Your task to perform on an android device: What's the latest video from Game Informer? Image 0: 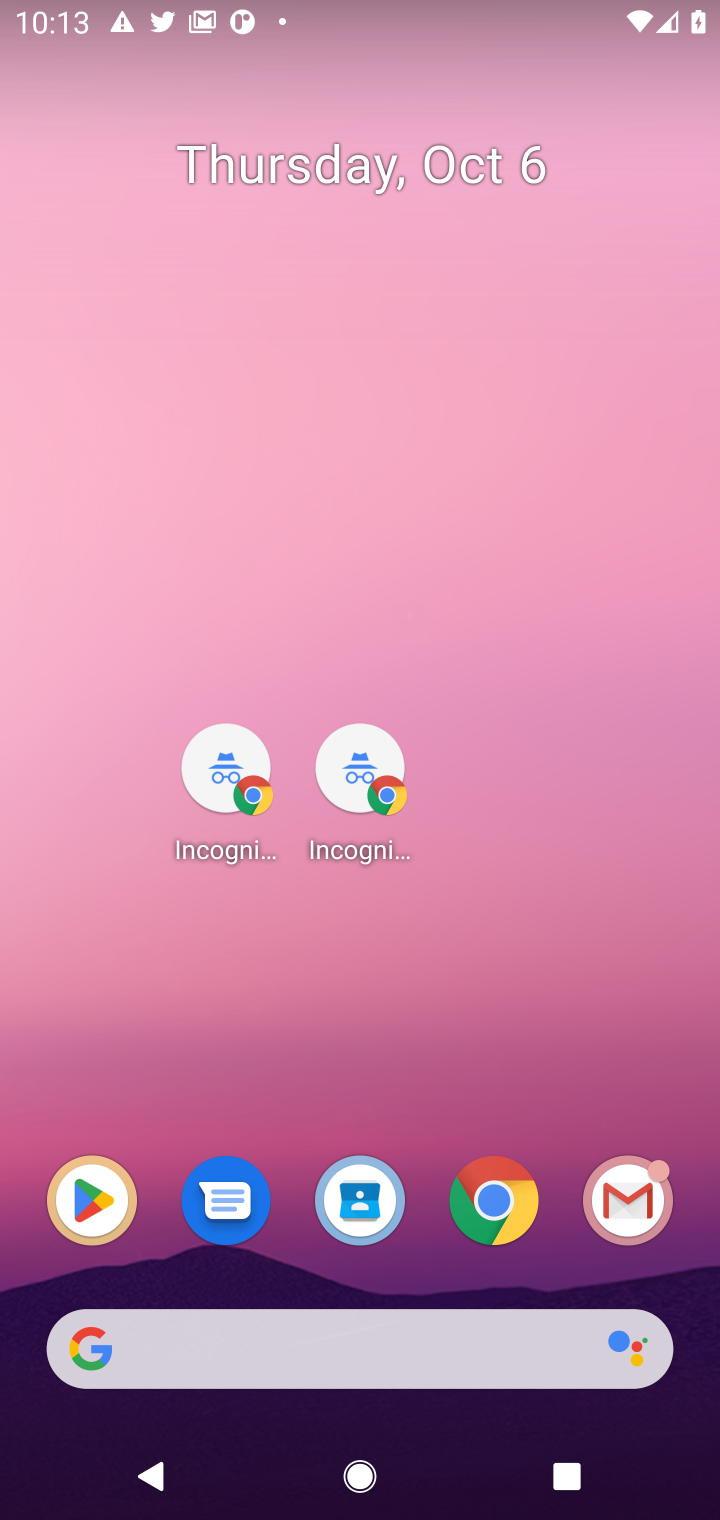
Step 0: click (488, 1196)
Your task to perform on an android device: What's the latest video from Game Informer? Image 1: 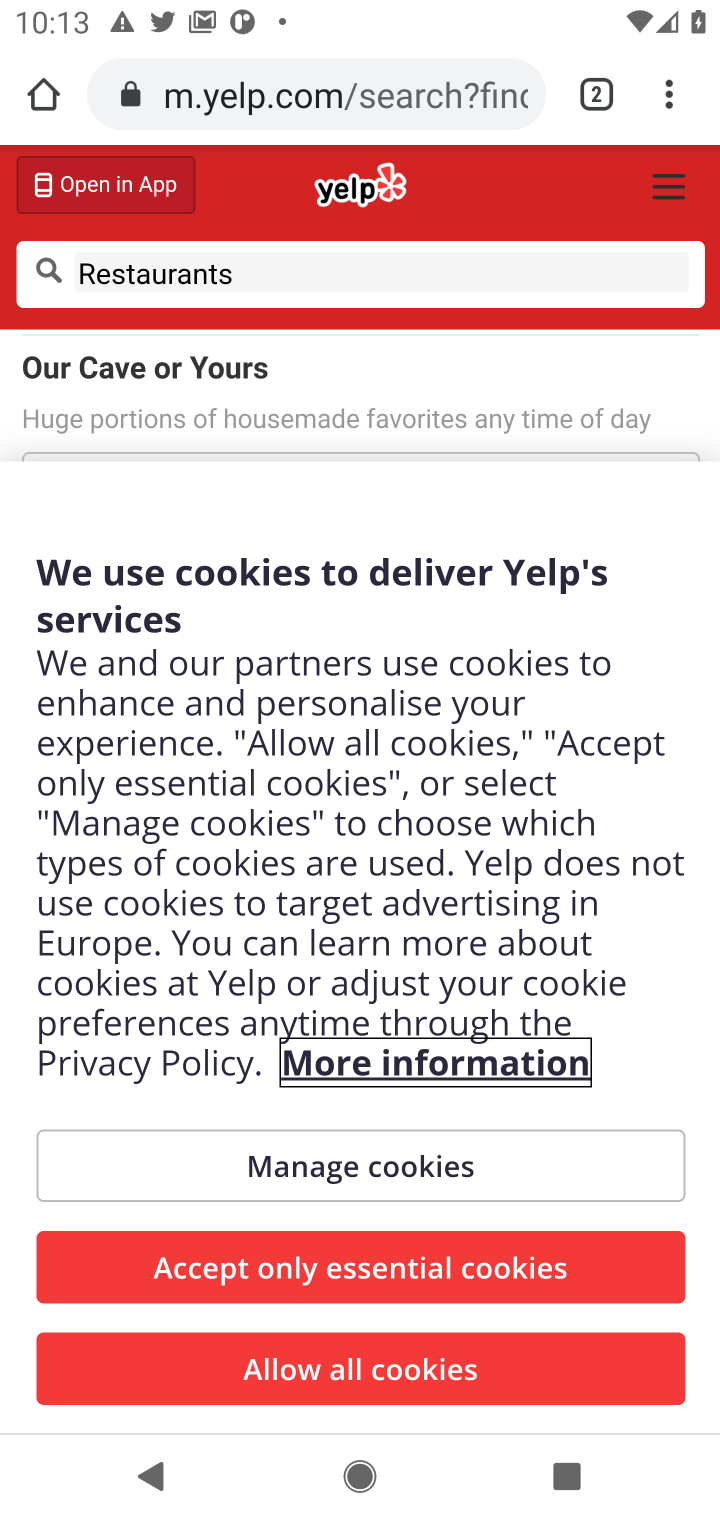
Step 1: click (414, 81)
Your task to perform on an android device: What's the latest video from Game Informer? Image 2: 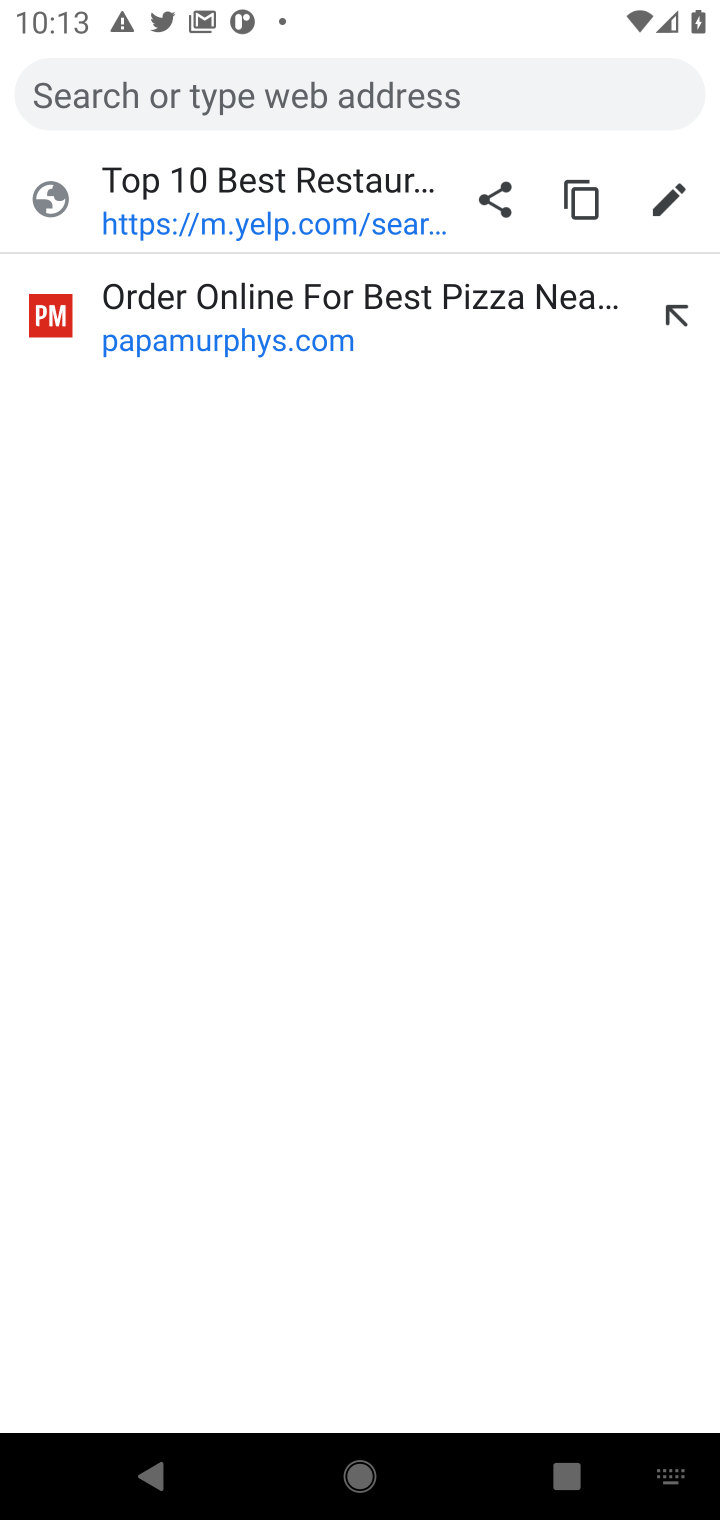
Step 2: type "game informer "
Your task to perform on an android device: What's the latest video from Game Informer? Image 3: 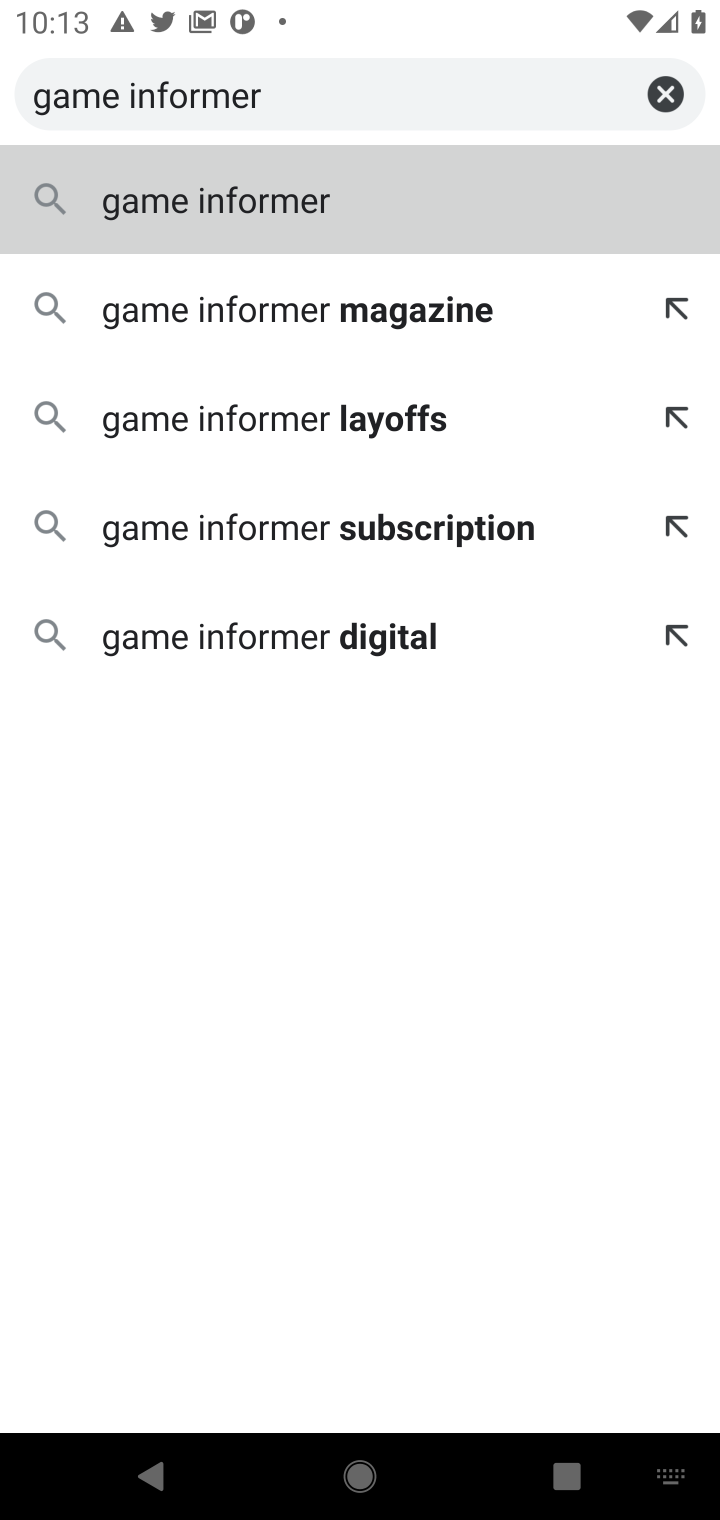
Step 3: type ""
Your task to perform on an android device: What's the latest video from Game Informer? Image 4: 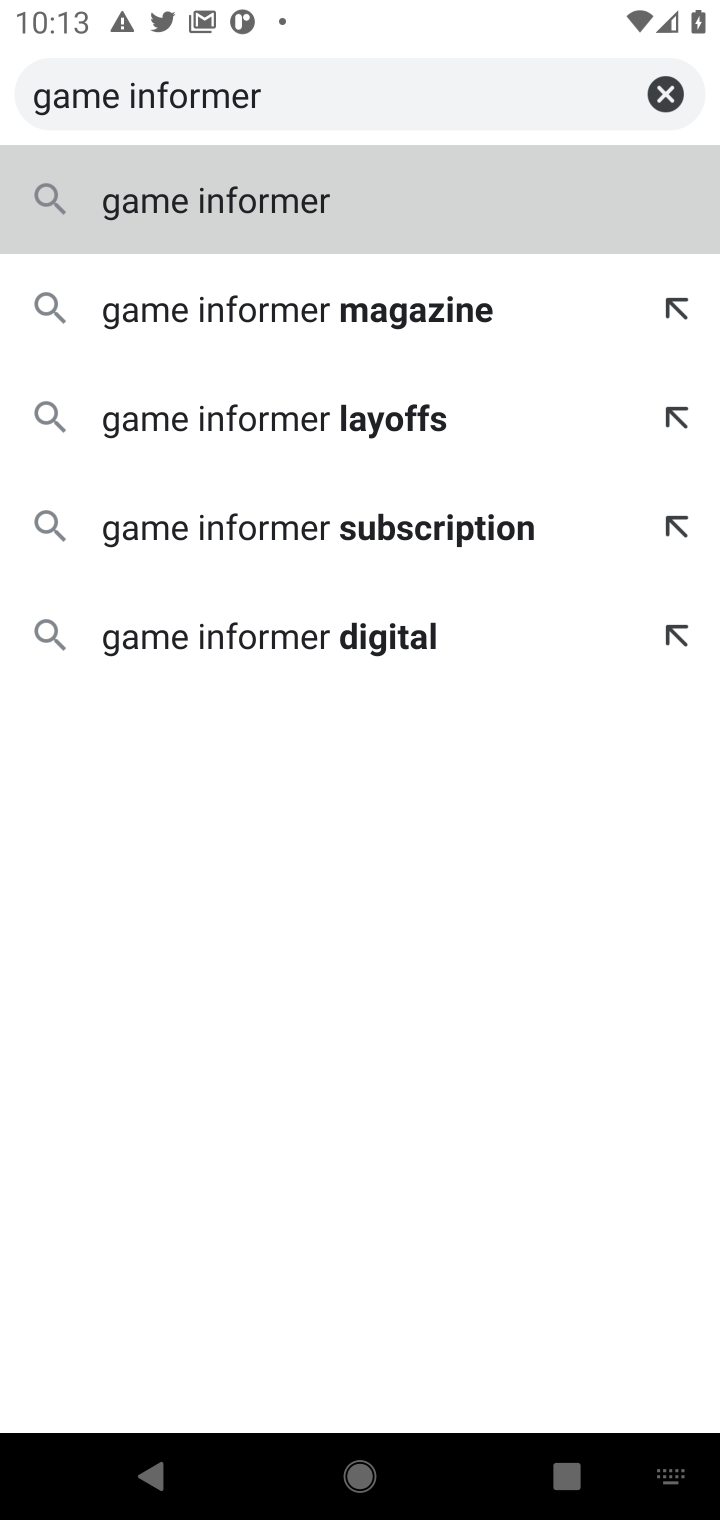
Step 4: click (270, 190)
Your task to perform on an android device: What's the latest video from Game Informer? Image 5: 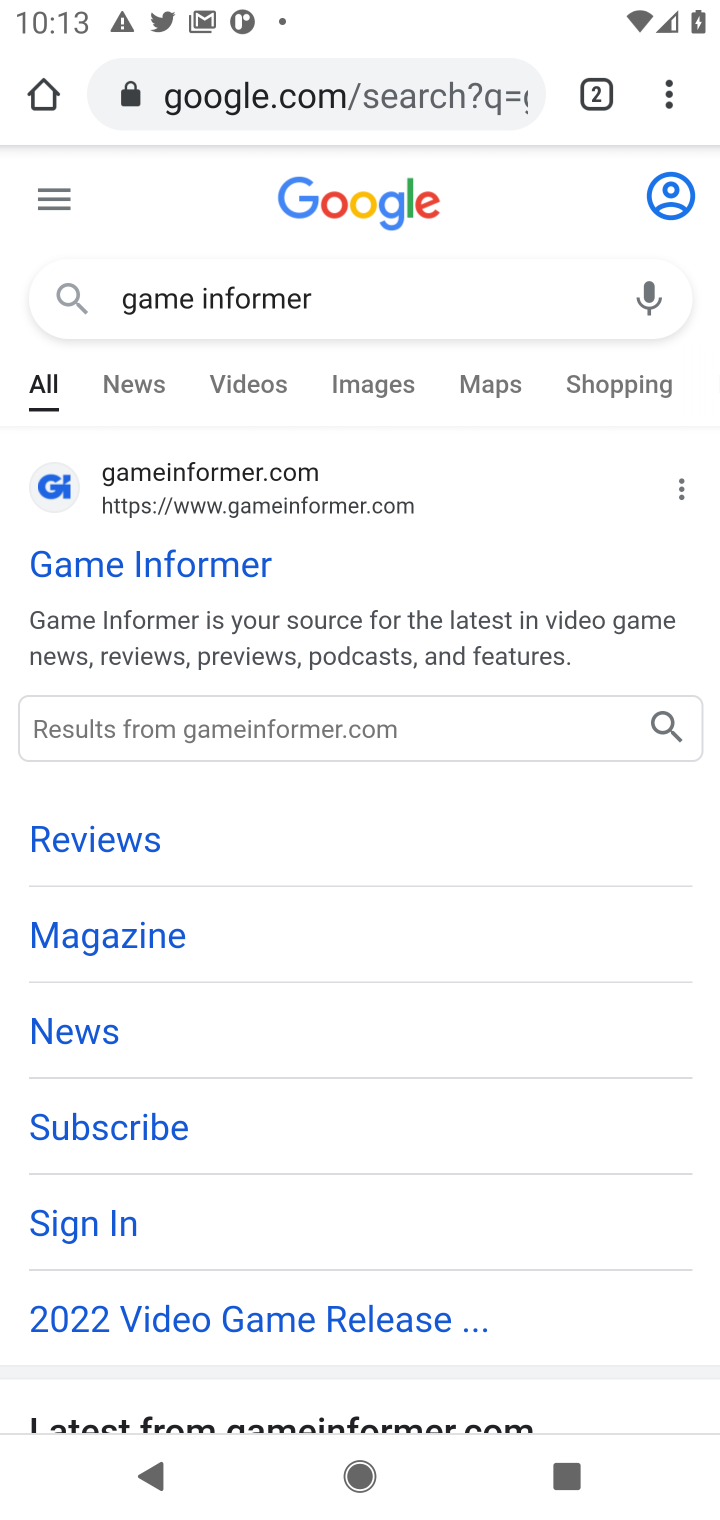
Step 5: click (168, 561)
Your task to perform on an android device: What's the latest video from Game Informer? Image 6: 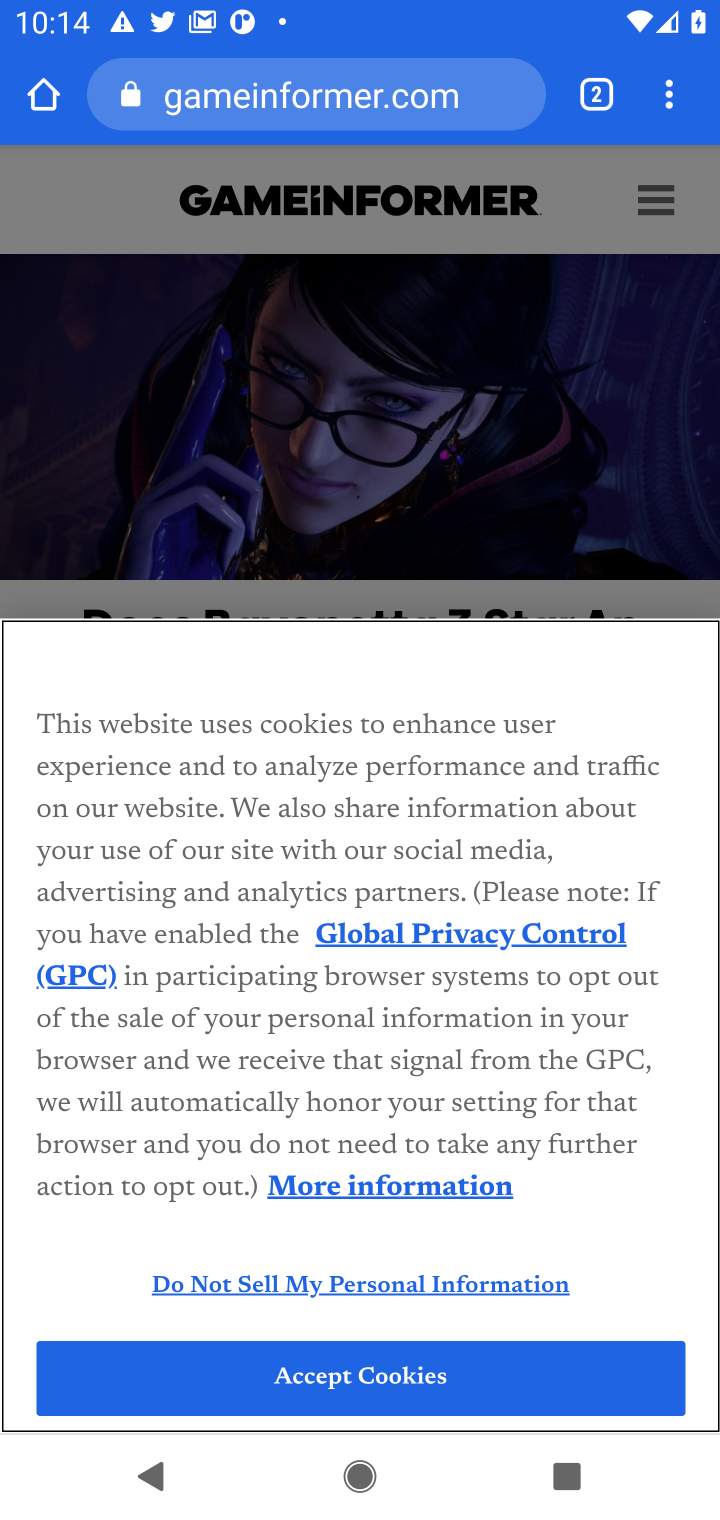
Step 6: click (348, 1373)
Your task to perform on an android device: What's the latest video from Game Informer? Image 7: 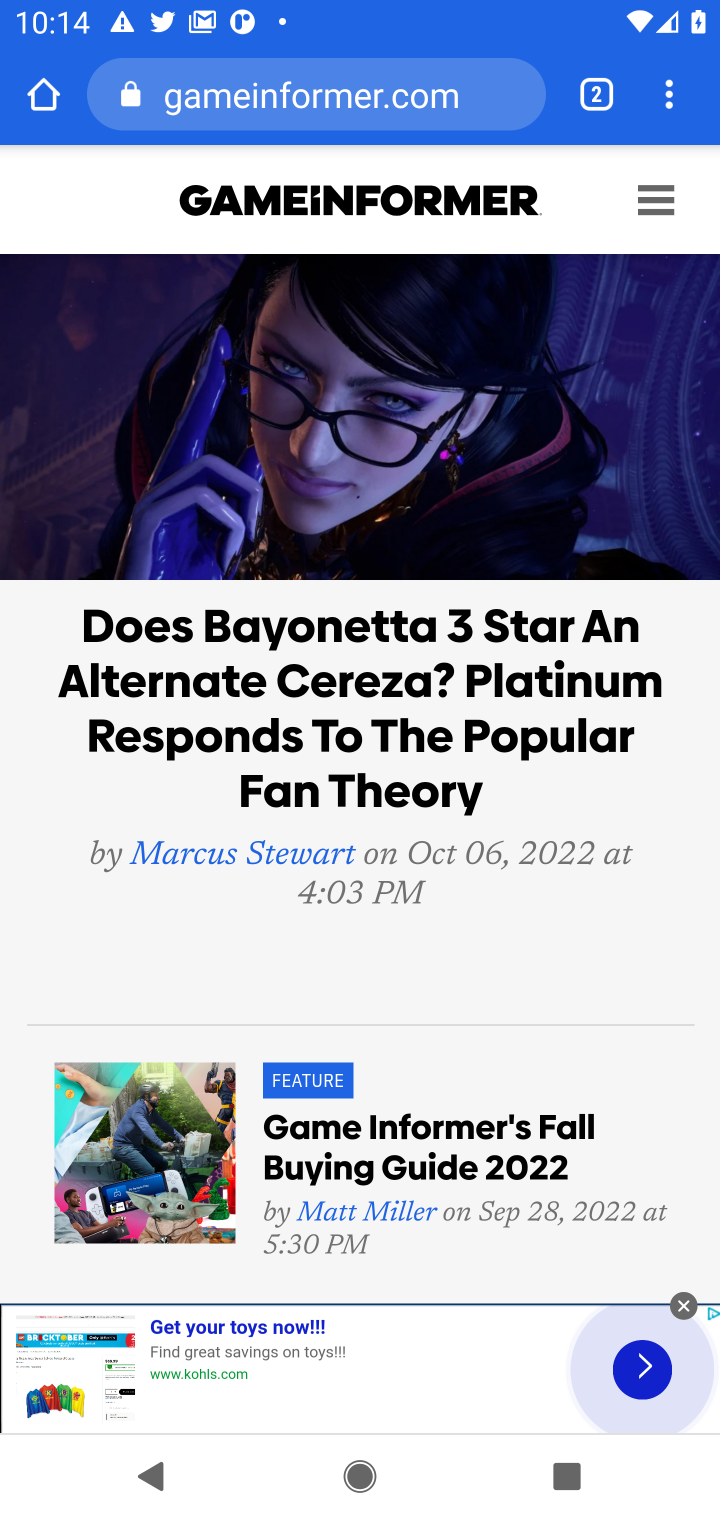
Step 7: drag from (513, 945) to (543, 475)
Your task to perform on an android device: What's the latest video from Game Informer? Image 8: 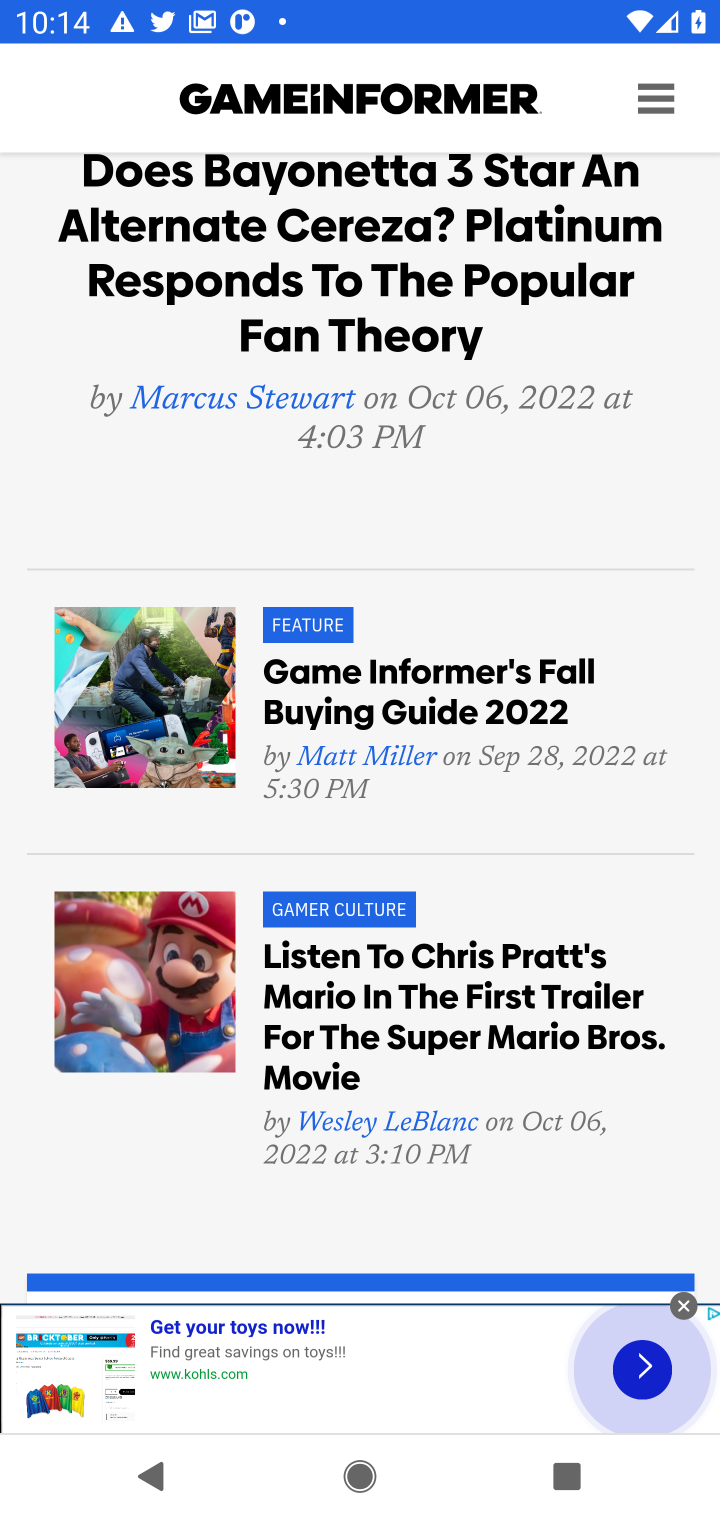
Step 8: drag from (344, 771) to (391, 311)
Your task to perform on an android device: What's the latest video from Game Informer? Image 9: 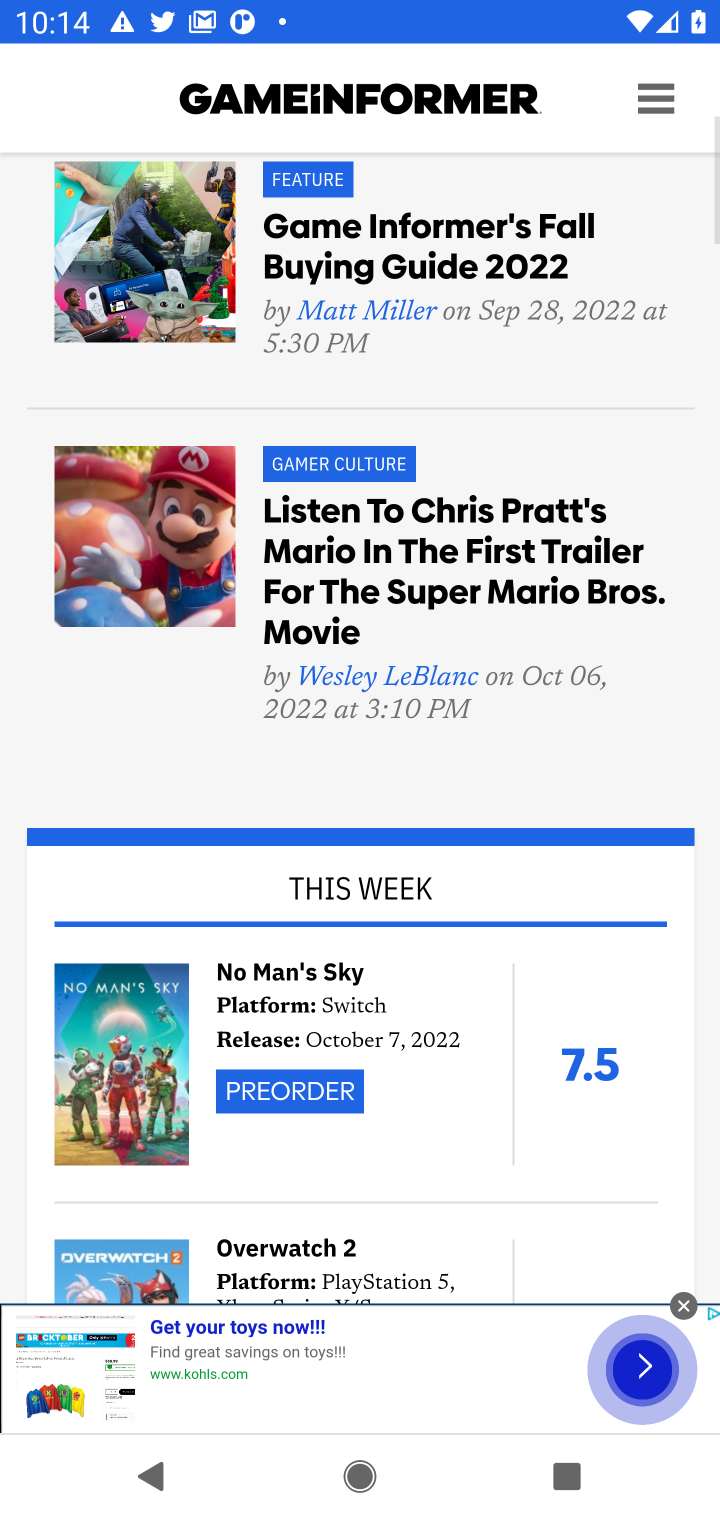
Step 9: drag from (530, 649) to (549, 412)
Your task to perform on an android device: What's the latest video from Game Informer? Image 10: 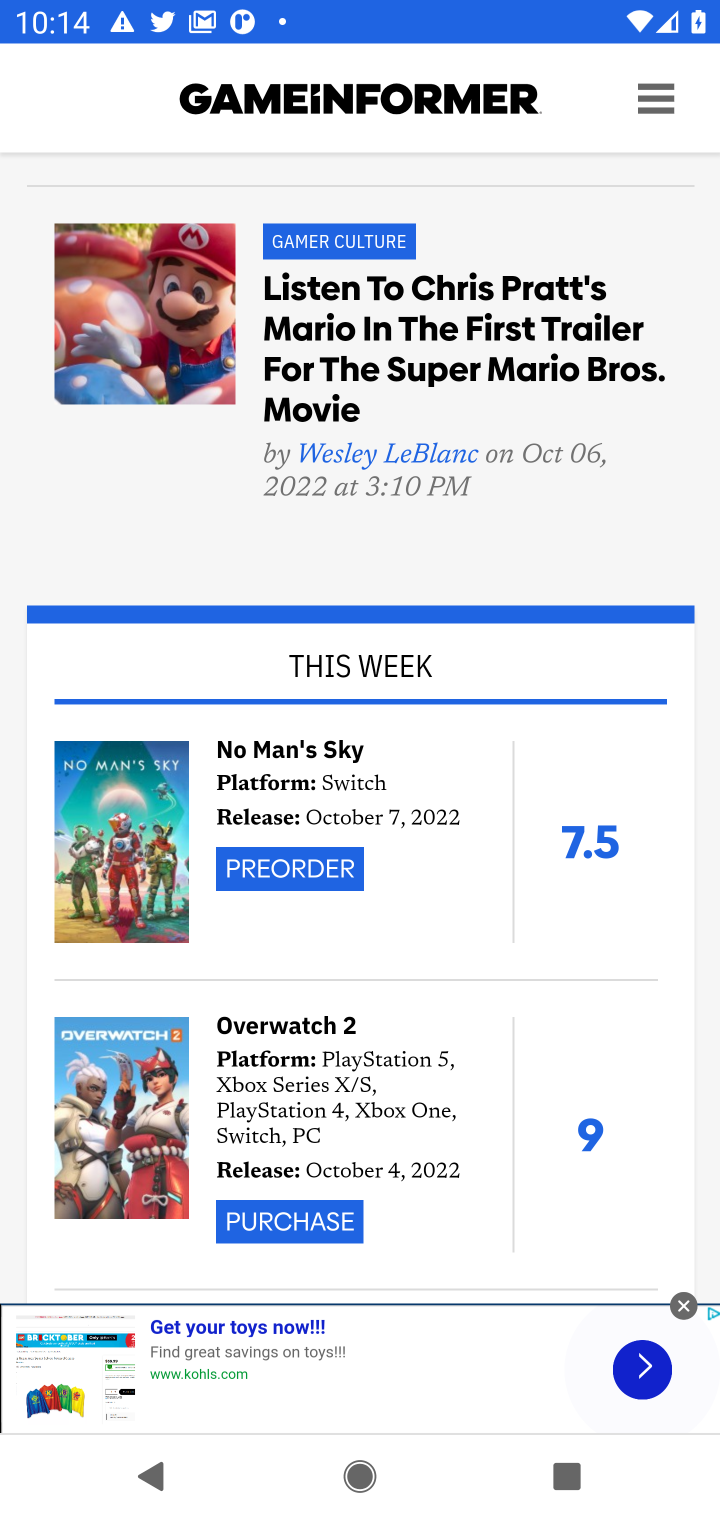
Step 10: drag from (262, 872) to (409, 437)
Your task to perform on an android device: What's the latest video from Game Informer? Image 11: 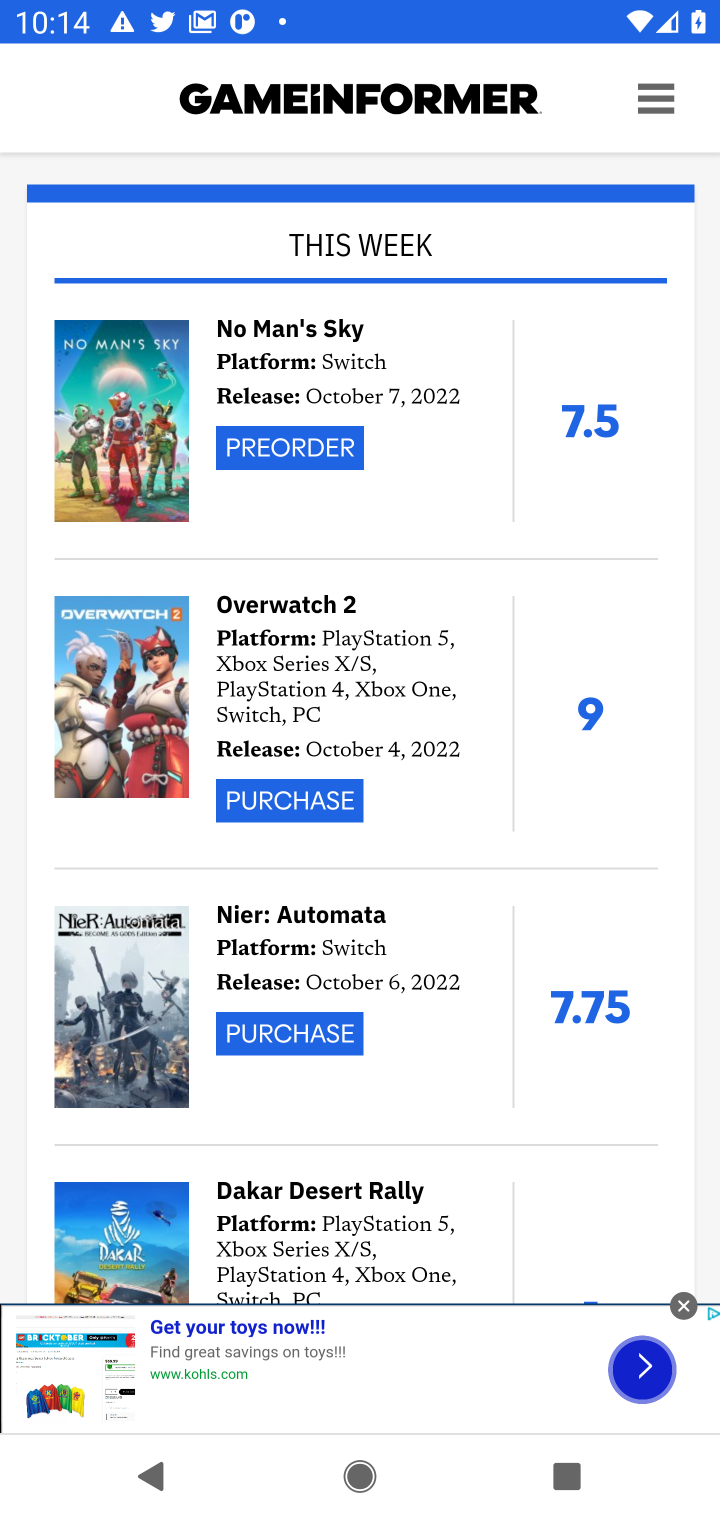
Step 11: drag from (448, 490) to (507, 1321)
Your task to perform on an android device: What's the latest video from Game Informer? Image 12: 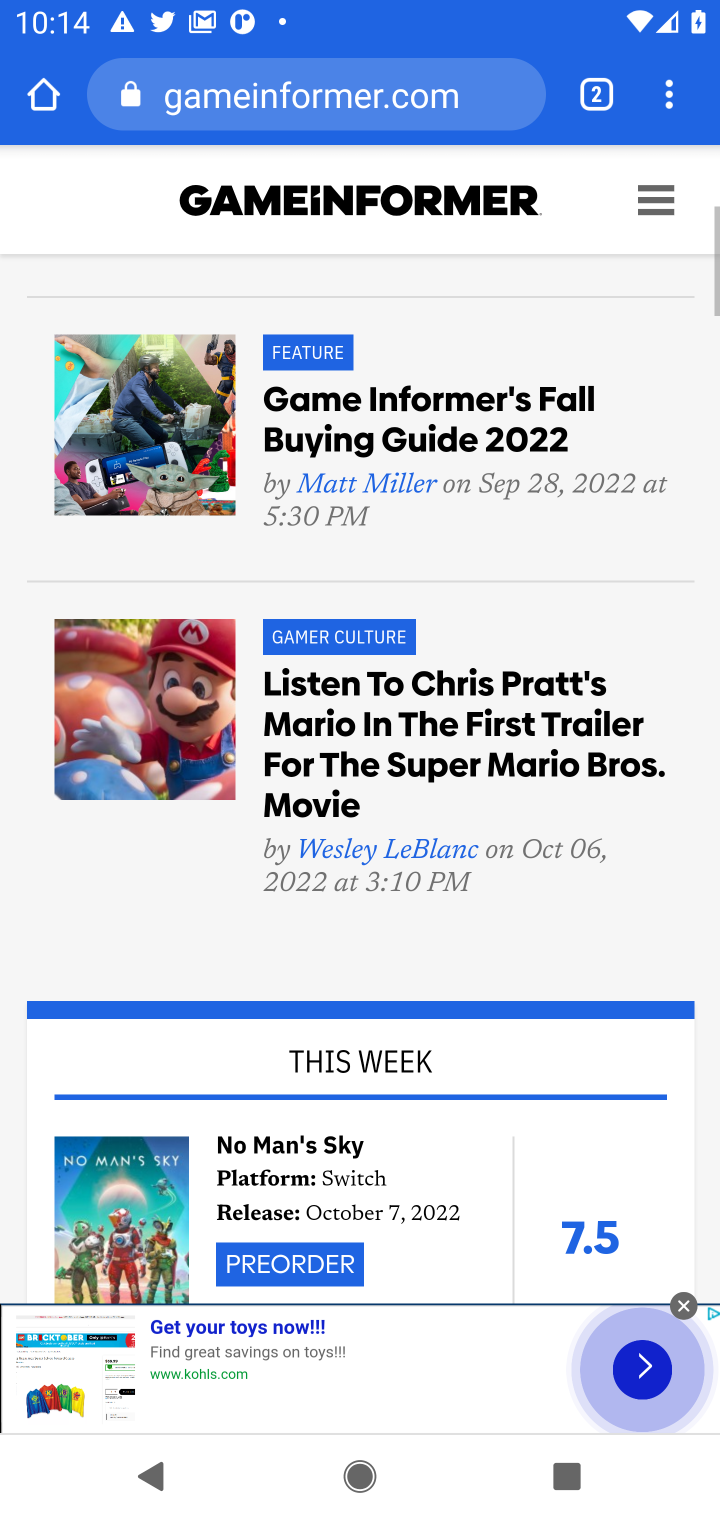
Step 12: drag from (379, 523) to (405, 1211)
Your task to perform on an android device: What's the latest video from Game Informer? Image 13: 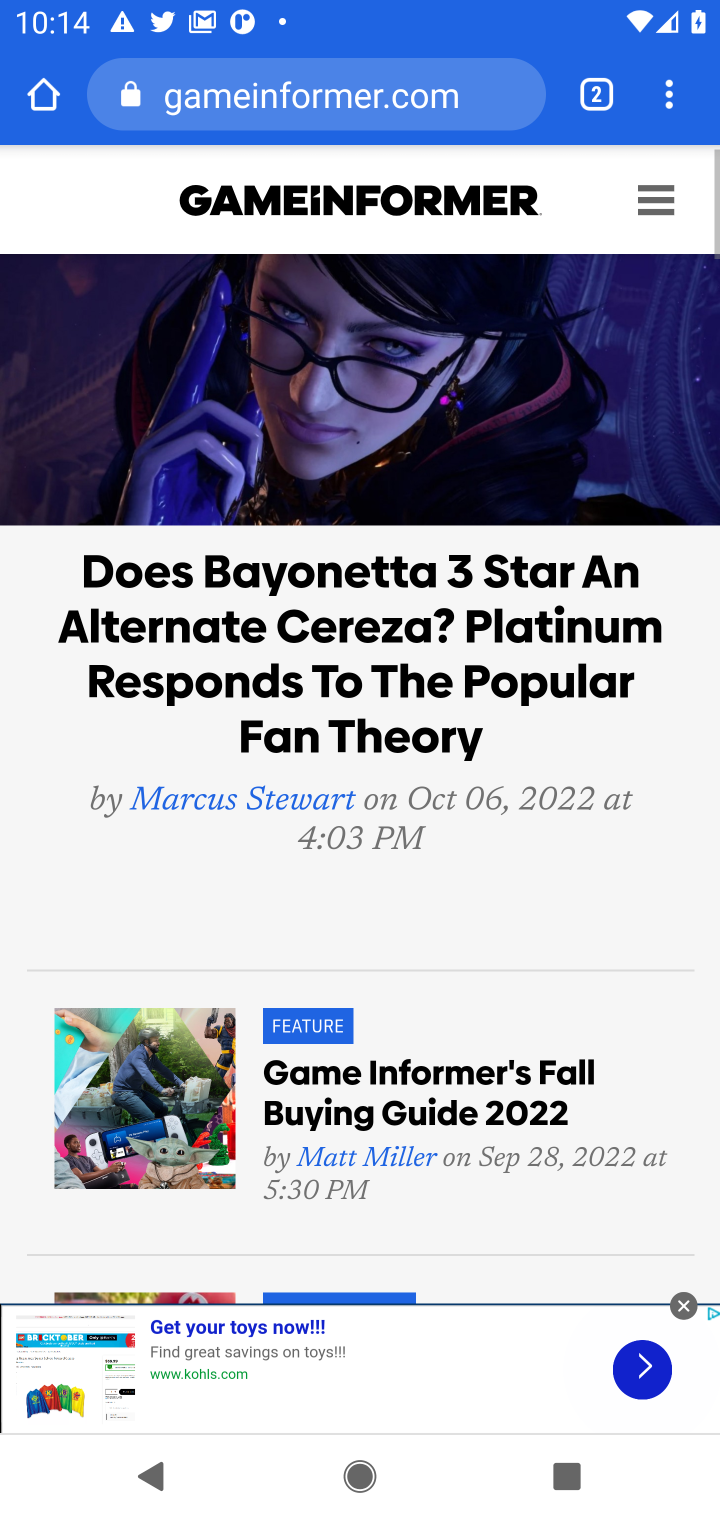
Step 13: click (635, 201)
Your task to perform on an android device: What's the latest video from Game Informer? Image 14: 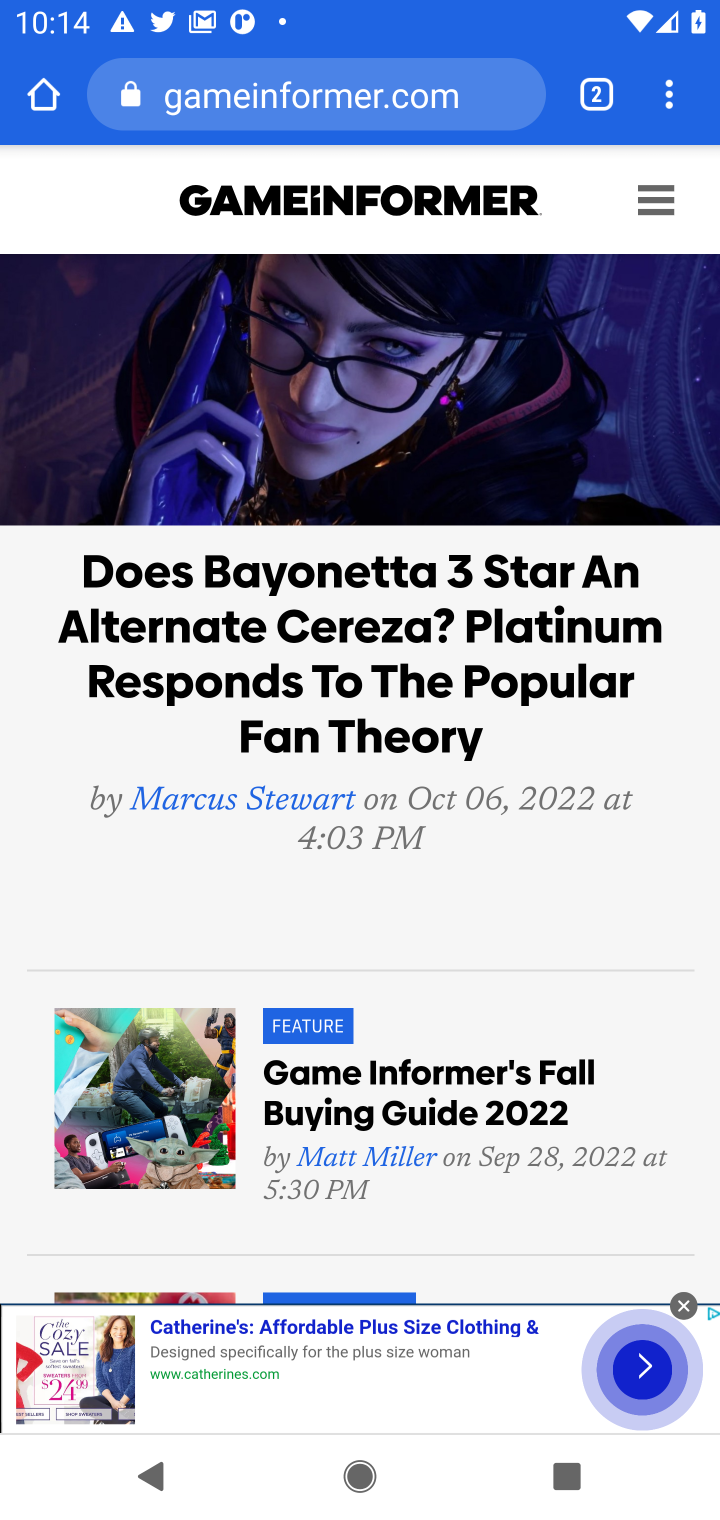
Step 14: click (658, 196)
Your task to perform on an android device: What's the latest video from Game Informer? Image 15: 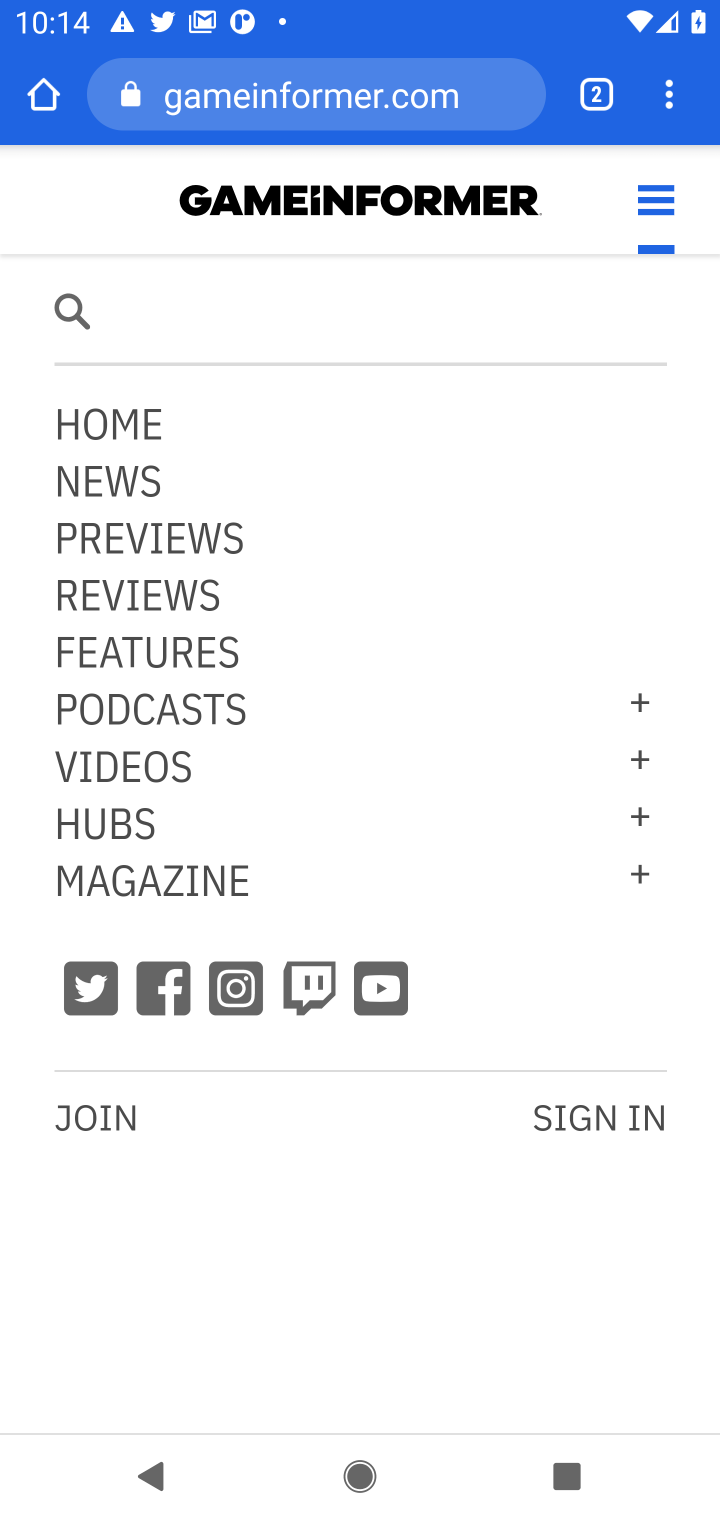
Step 15: click (76, 302)
Your task to perform on an android device: What's the latest video from Game Informer? Image 16: 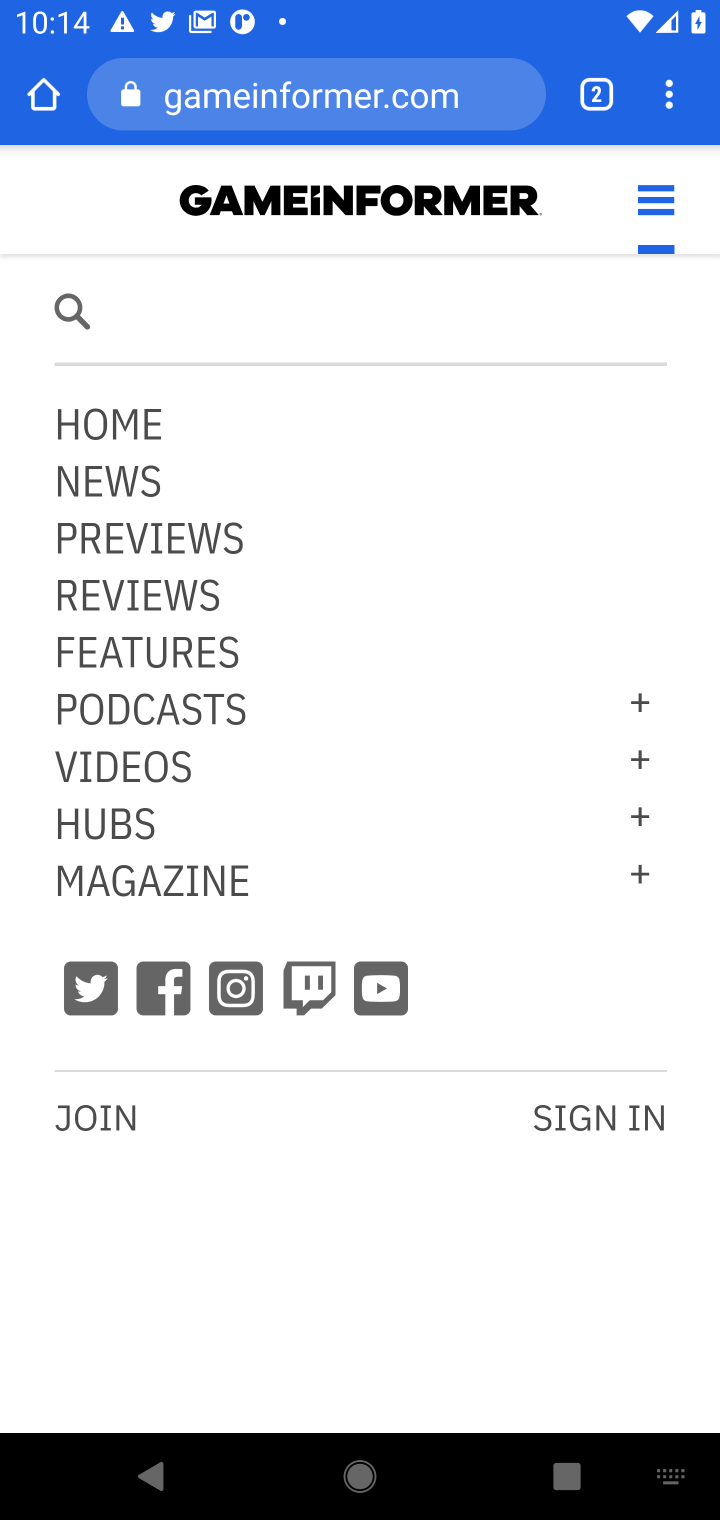
Step 16: type "latest videos"
Your task to perform on an android device: What's the latest video from Game Informer? Image 17: 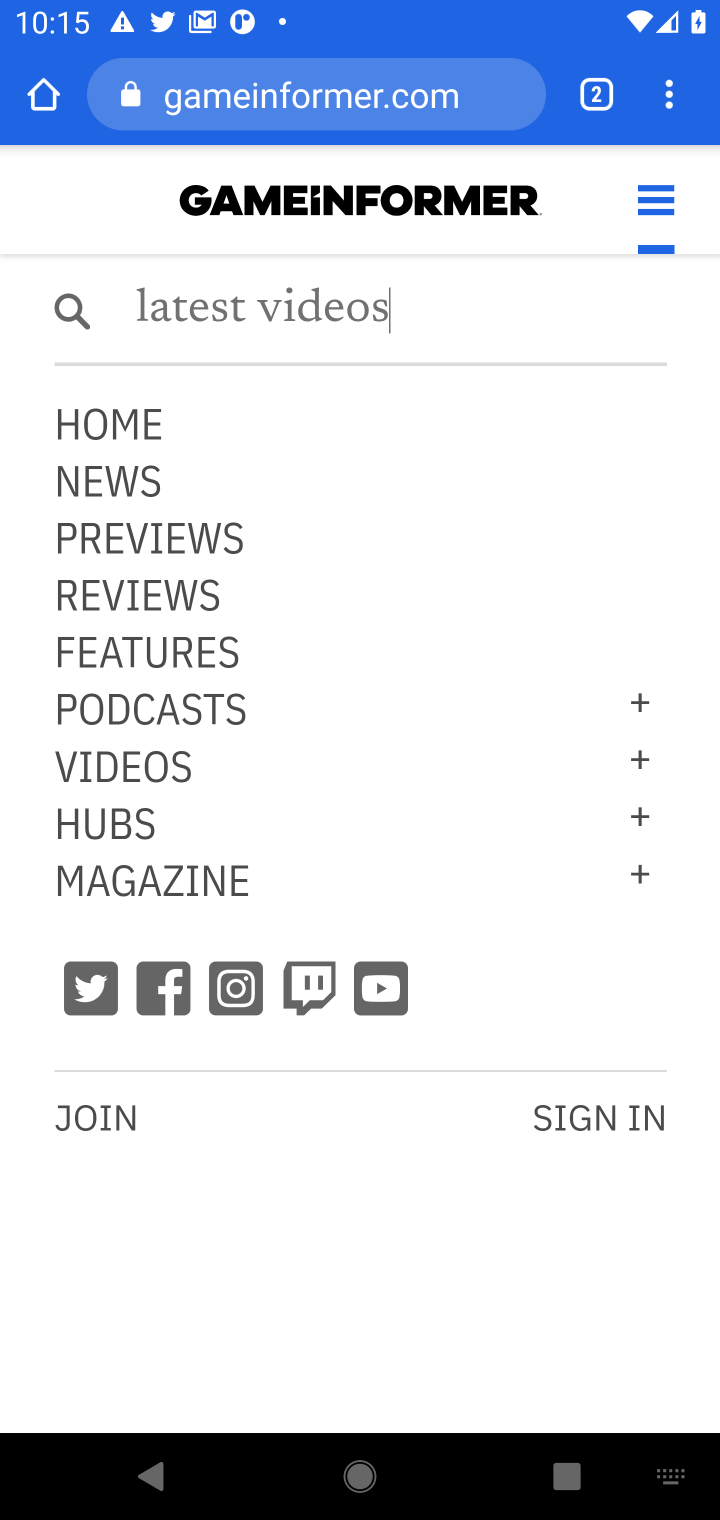
Step 17: click (151, 412)
Your task to perform on an android device: What's the latest video from Game Informer? Image 18: 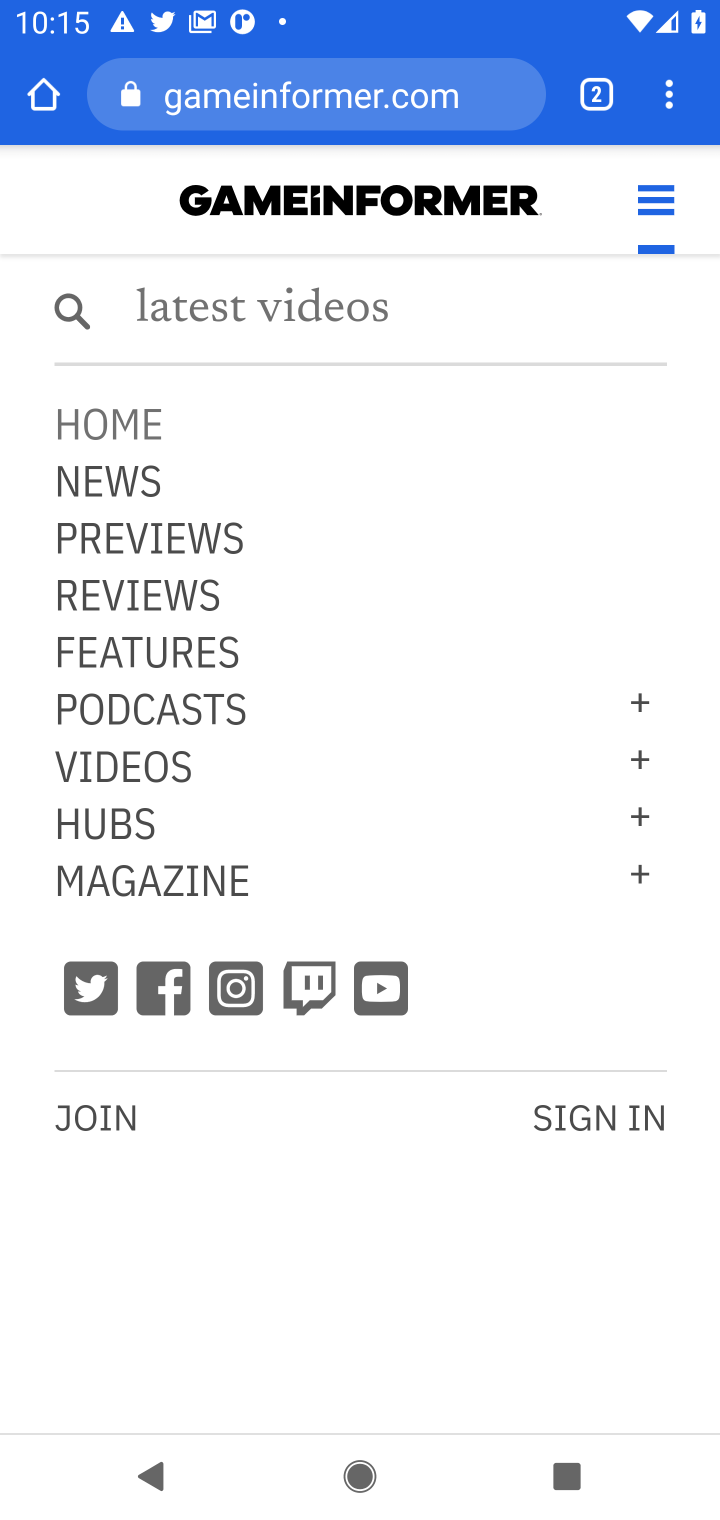
Step 18: click (94, 777)
Your task to perform on an android device: What's the latest video from Game Informer? Image 19: 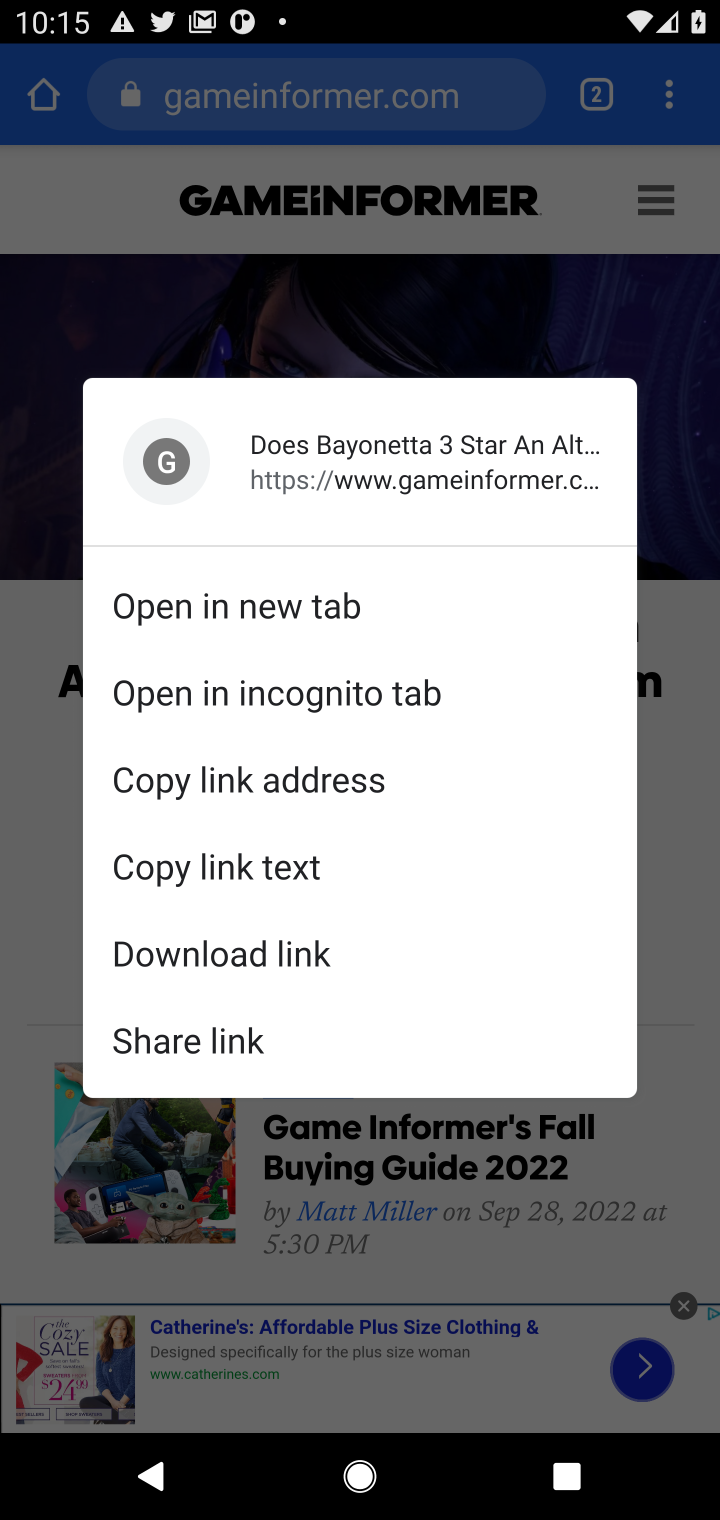
Step 19: task complete